Your task to perform on an android device: check data usage Image 0: 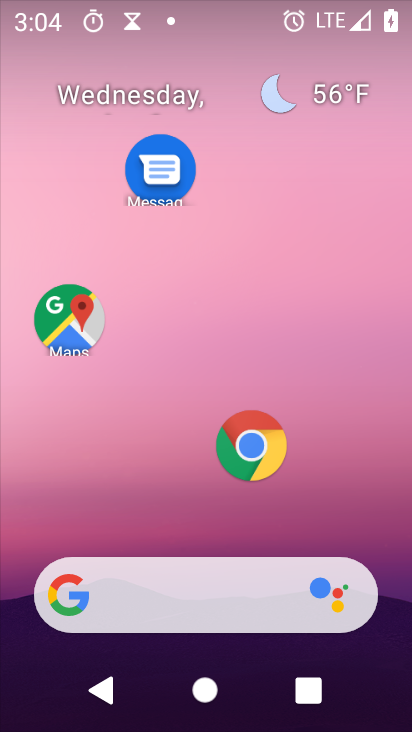
Step 0: drag from (153, 523) to (207, 51)
Your task to perform on an android device: check data usage Image 1: 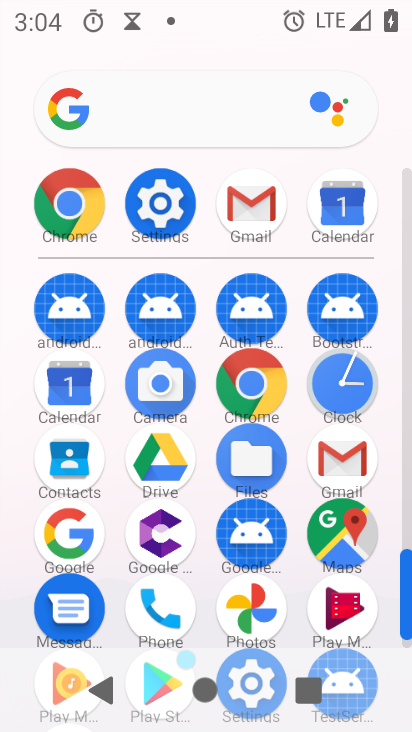
Step 1: drag from (224, 271) to (233, 75)
Your task to perform on an android device: check data usage Image 2: 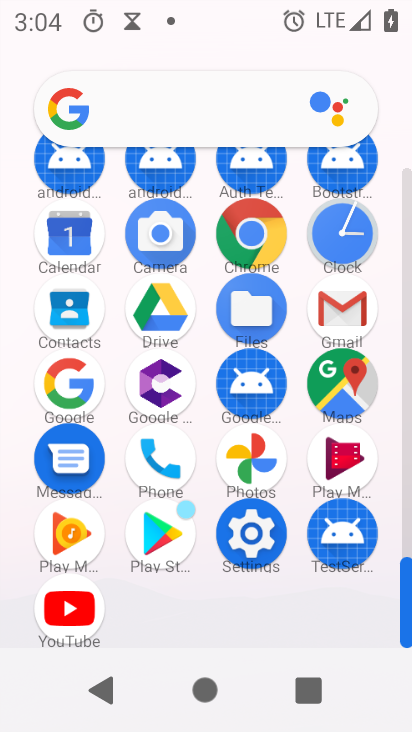
Step 2: click (262, 539)
Your task to perform on an android device: check data usage Image 3: 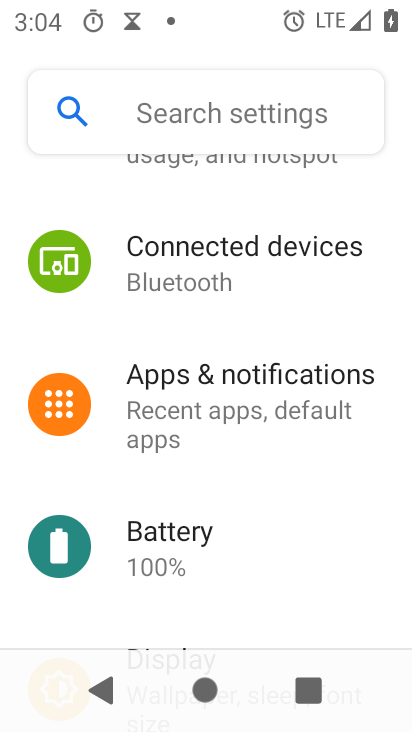
Step 3: drag from (245, 291) to (250, 713)
Your task to perform on an android device: check data usage Image 4: 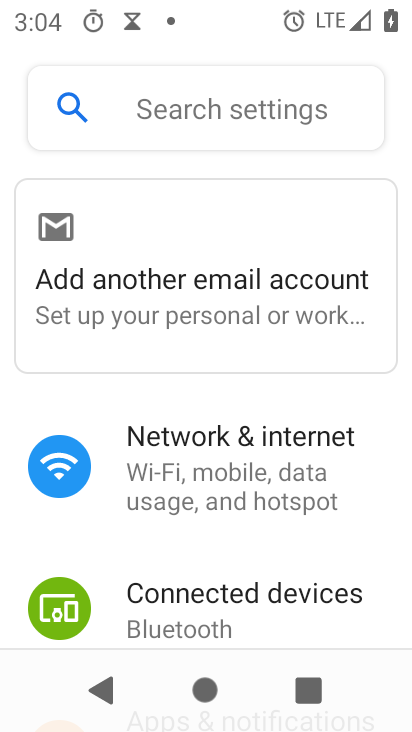
Step 4: click (243, 470)
Your task to perform on an android device: check data usage Image 5: 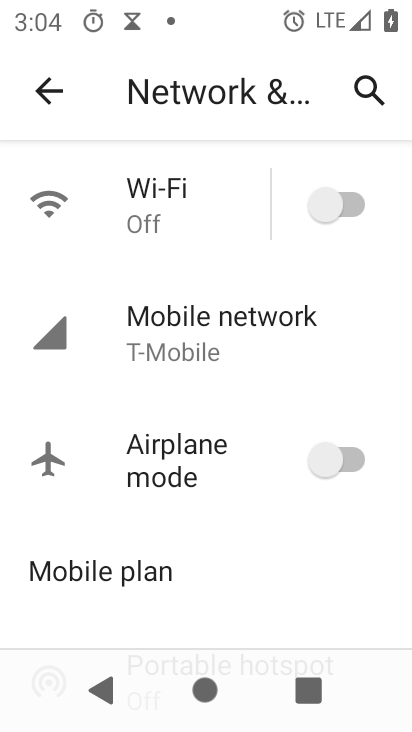
Step 5: click (206, 341)
Your task to perform on an android device: check data usage Image 6: 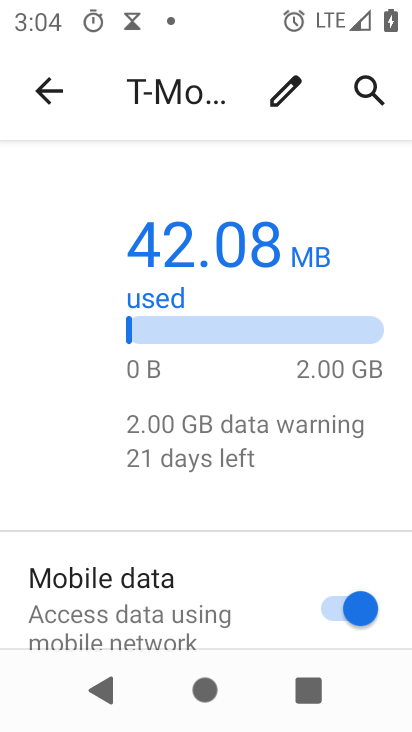
Step 6: drag from (250, 506) to (208, 59)
Your task to perform on an android device: check data usage Image 7: 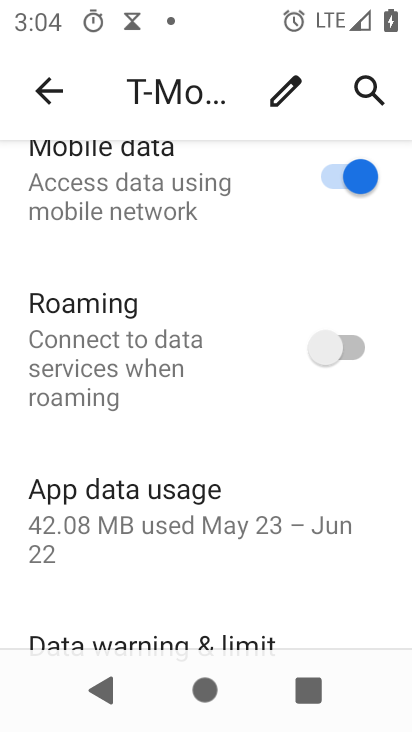
Step 7: click (173, 529)
Your task to perform on an android device: check data usage Image 8: 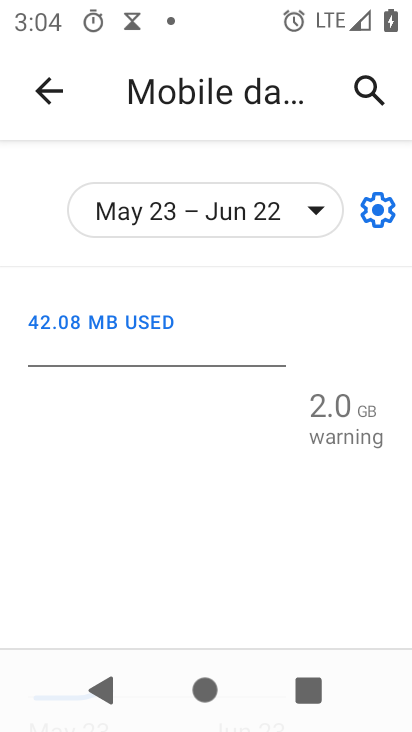
Step 8: task complete